Your task to perform on an android device: Open Chrome and go to settings Image 0: 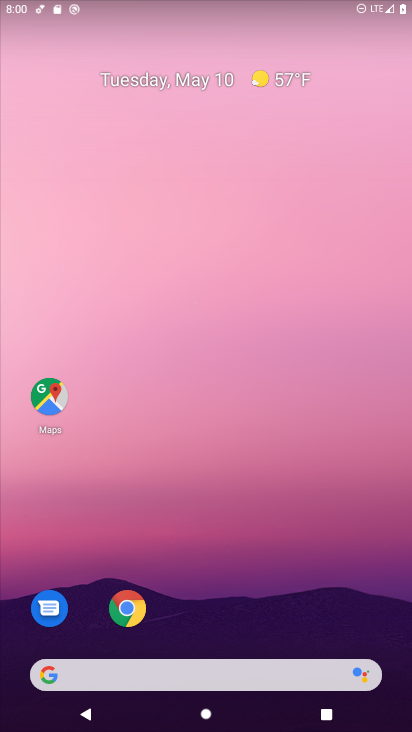
Step 0: drag from (318, 607) to (256, 178)
Your task to perform on an android device: Open Chrome and go to settings Image 1: 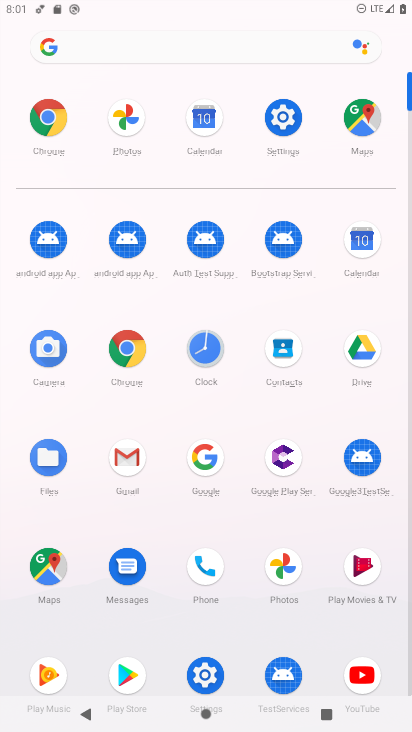
Step 1: click (132, 348)
Your task to perform on an android device: Open Chrome and go to settings Image 2: 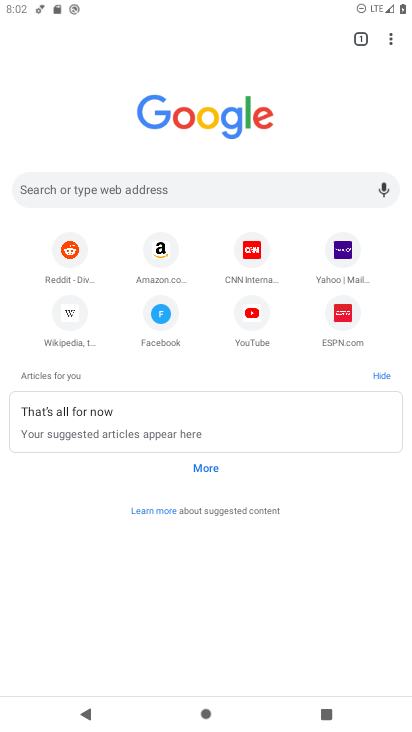
Step 2: click (391, 32)
Your task to perform on an android device: Open Chrome and go to settings Image 3: 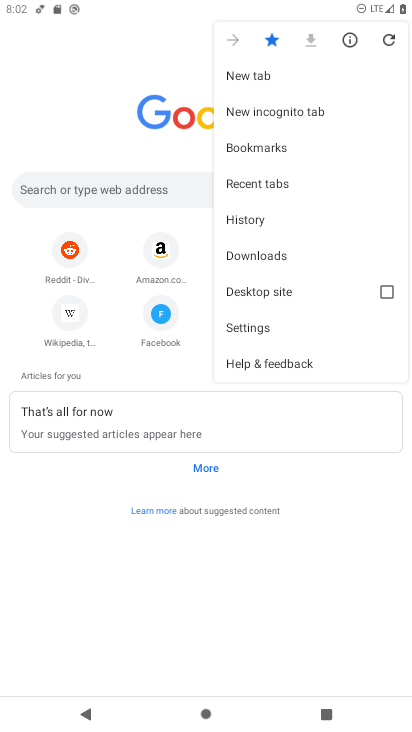
Step 3: click (276, 328)
Your task to perform on an android device: Open Chrome and go to settings Image 4: 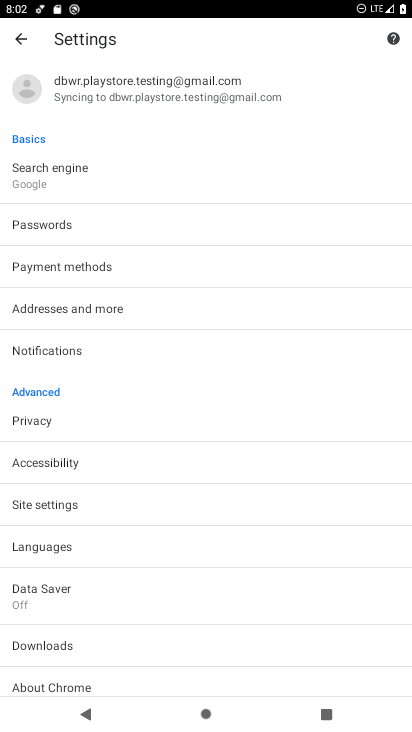
Step 4: task complete